Your task to perform on an android device: choose inbox layout in the gmail app Image 0: 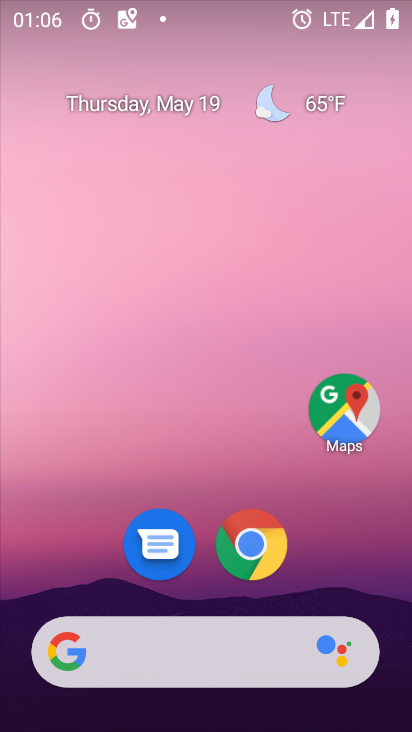
Step 0: drag from (367, 549) to (363, 143)
Your task to perform on an android device: choose inbox layout in the gmail app Image 1: 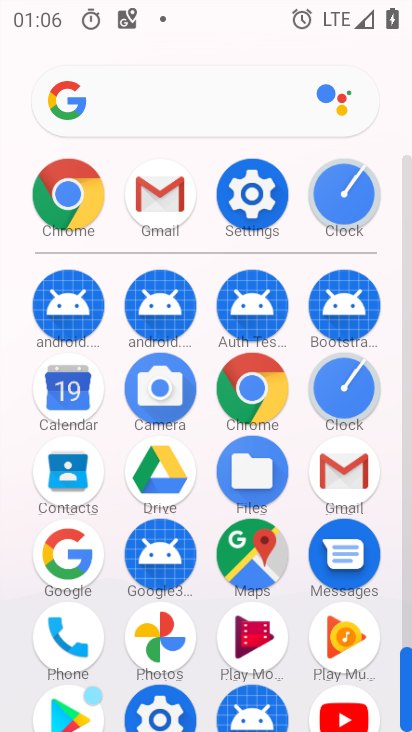
Step 1: click (339, 475)
Your task to perform on an android device: choose inbox layout in the gmail app Image 2: 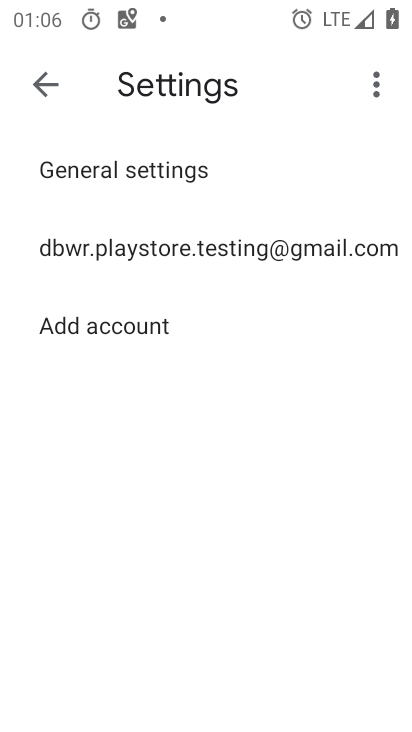
Step 2: click (197, 251)
Your task to perform on an android device: choose inbox layout in the gmail app Image 3: 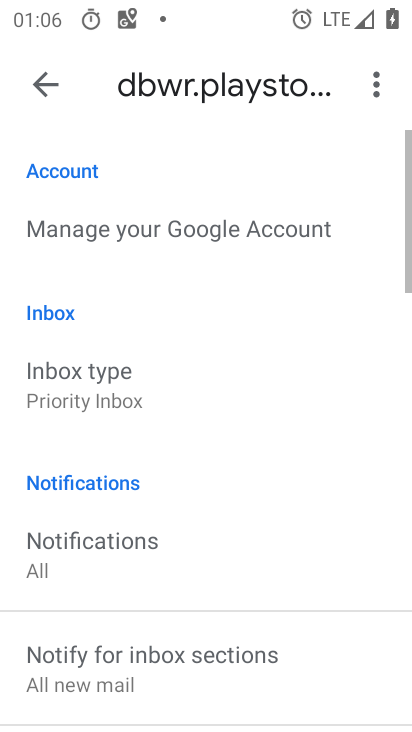
Step 3: drag from (278, 593) to (295, 427)
Your task to perform on an android device: choose inbox layout in the gmail app Image 4: 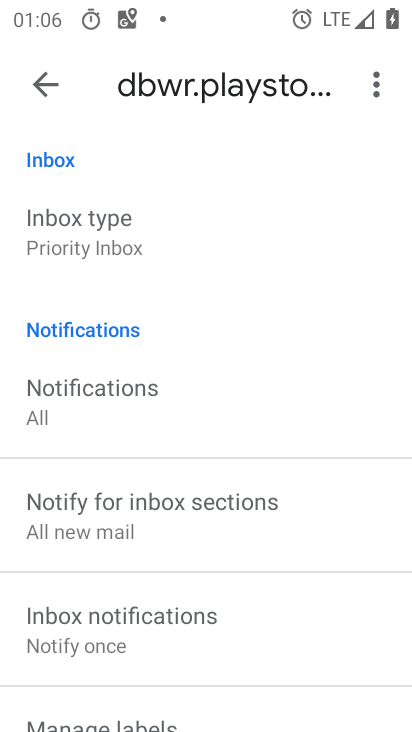
Step 4: drag from (327, 611) to (334, 452)
Your task to perform on an android device: choose inbox layout in the gmail app Image 5: 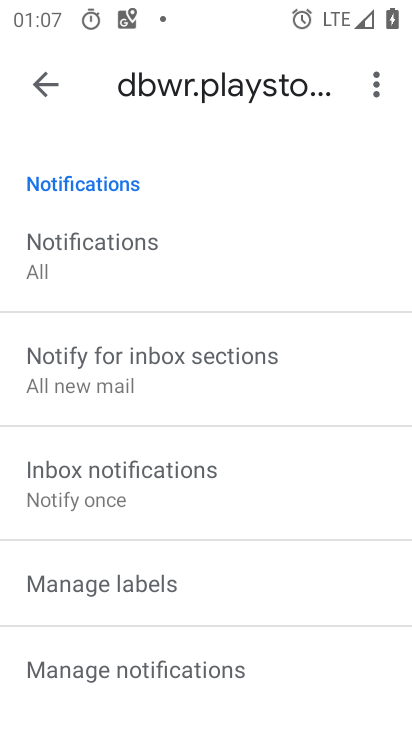
Step 5: drag from (340, 615) to (327, 428)
Your task to perform on an android device: choose inbox layout in the gmail app Image 6: 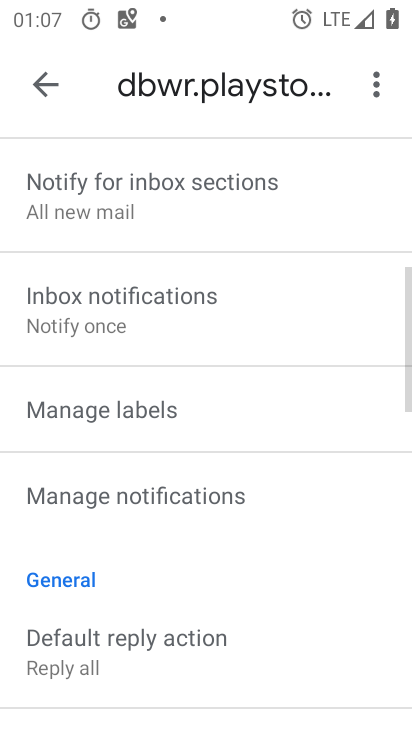
Step 6: drag from (316, 601) to (317, 471)
Your task to perform on an android device: choose inbox layout in the gmail app Image 7: 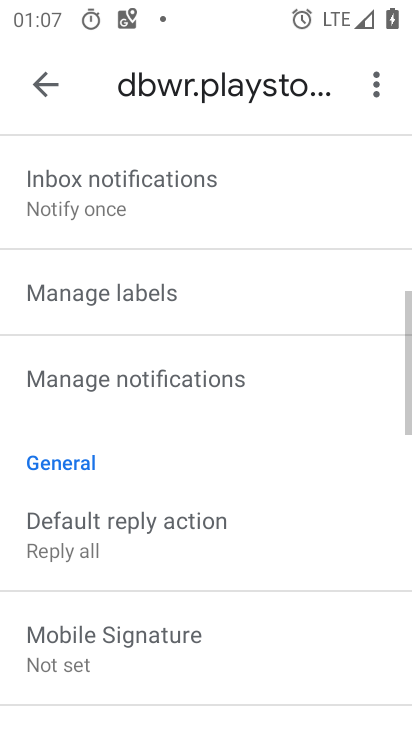
Step 7: drag from (301, 627) to (317, 506)
Your task to perform on an android device: choose inbox layout in the gmail app Image 8: 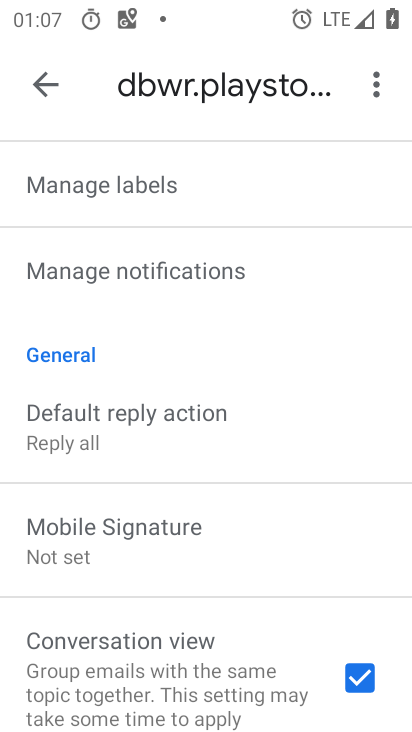
Step 8: drag from (293, 344) to (276, 536)
Your task to perform on an android device: choose inbox layout in the gmail app Image 9: 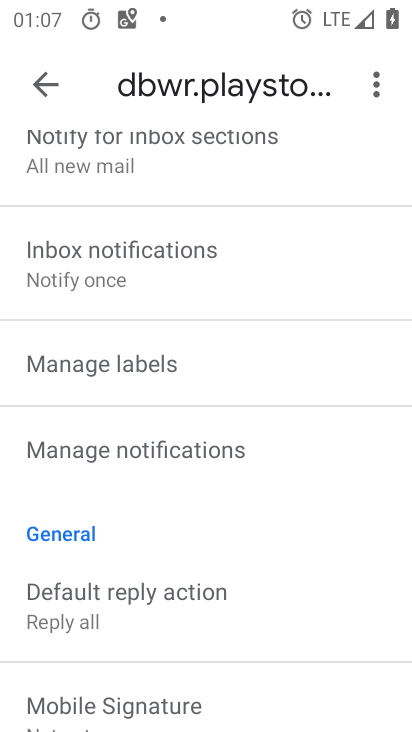
Step 9: drag from (269, 295) to (257, 506)
Your task to perform on an android device: choose inbox layout in the gmail app Image 10: 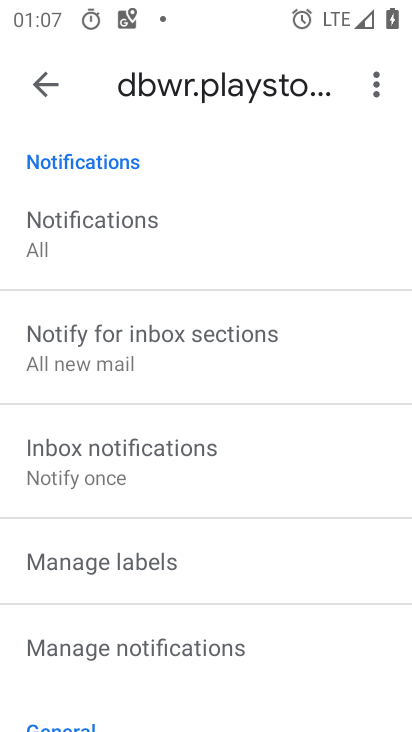
Step 10: drag from (251, 252) to (234, 445)
Your task to perform on an android device: choose inbox layout in the gmail app Image 11: 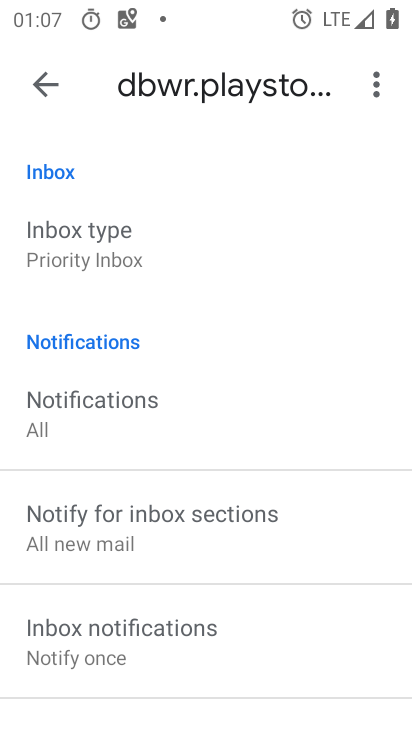
Step 11: click (103, 252)
Your task to perform on an android device: choose inbox layout in the gmail app Image 12: 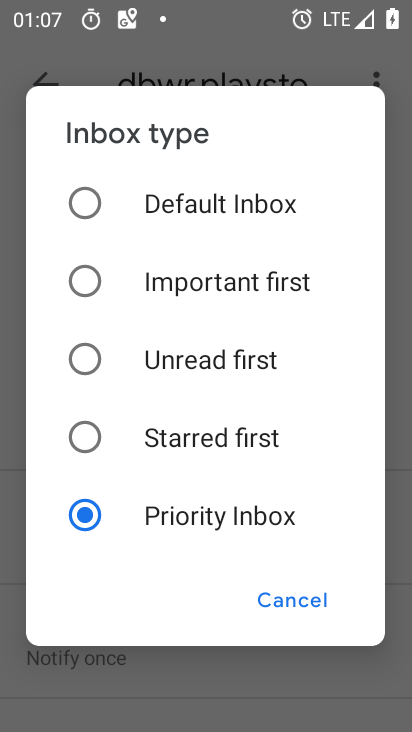
Step 12: click (169, 202)
Your task to perform on an android device: choose inbox layout in the gmail app Image 13: 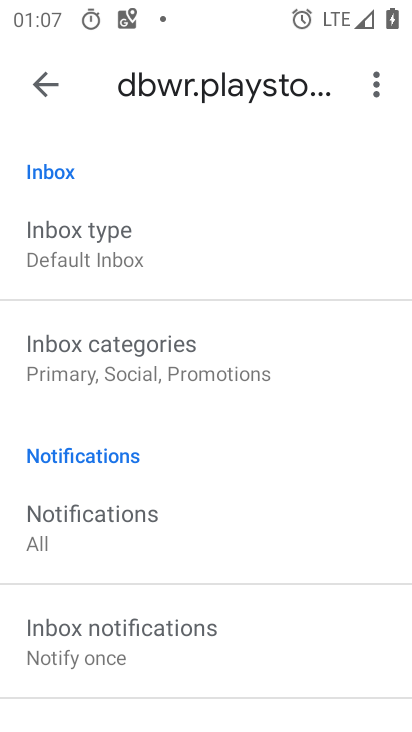
Step 13: task complete